Your task to perform on an android device: check out phone information Image 0: 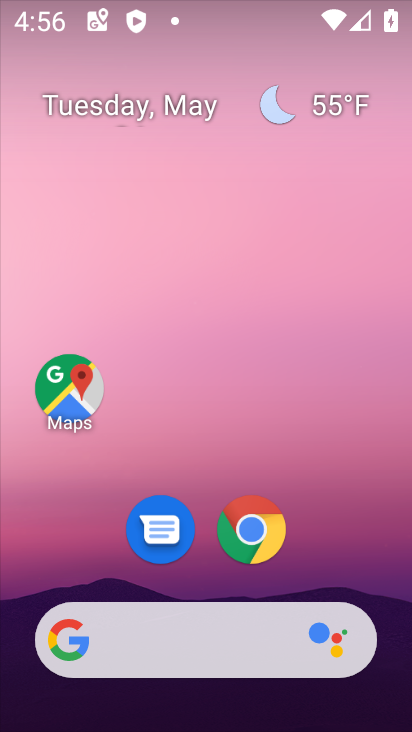
Step 0: click (130, 176)
Your task to perform on an android device: check out phone information Image 1: 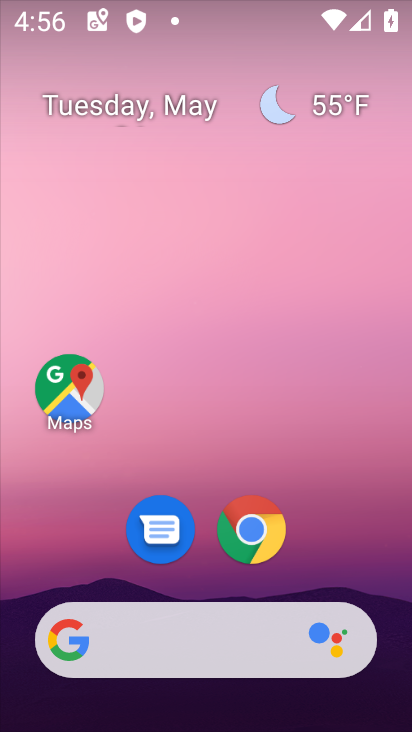
Step 1: drag from (268, 651) to (185, 34)
Your task to perform on an android device: check out phone information Image 2: 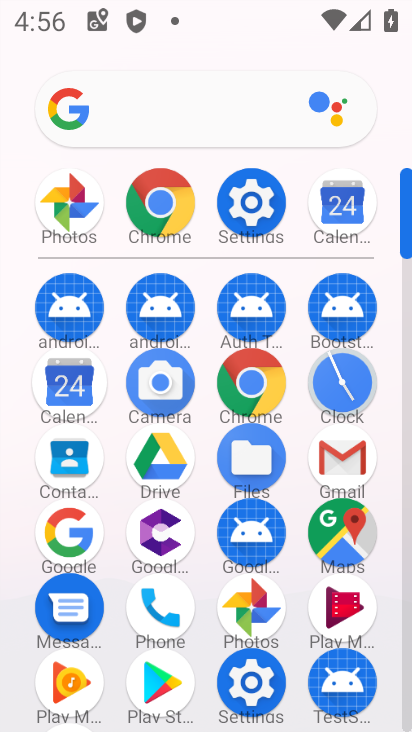
Step 2: drag from (283, 599) to (222, 63)
Your task to perform on an android device: check out phone information Image 3: 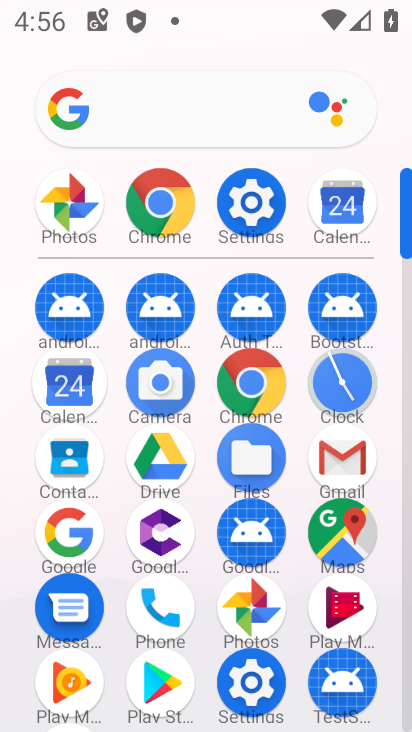
Step 3: click (237, 206)
Your task to perform on an android device: check out phone information Image 4: 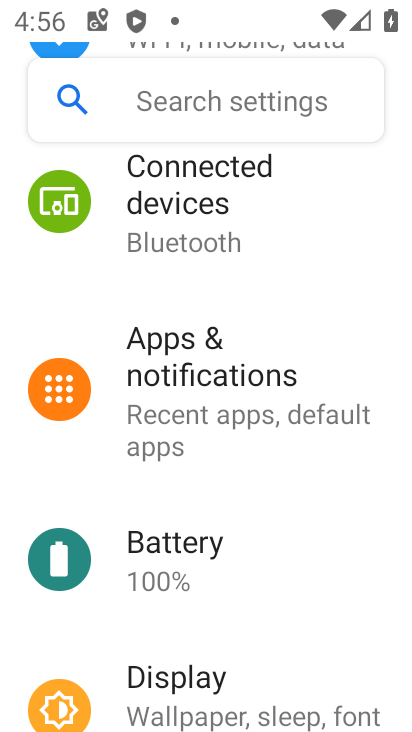
Step 4: drag from (230, 579) to (193, 228)
Your task to perform on an android device: check out phone information Image 5: 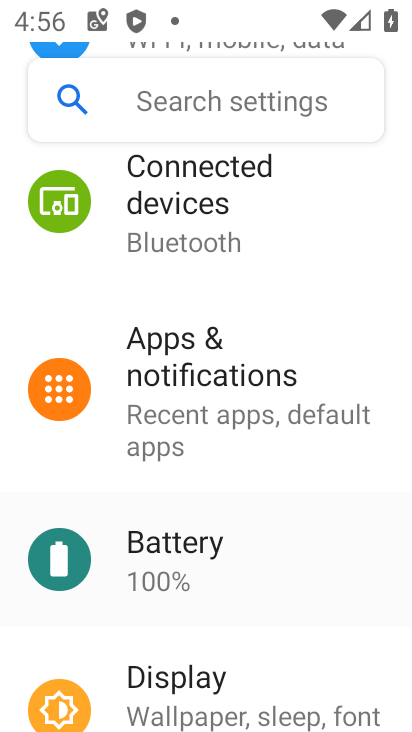
Step 5: drag from (302, 567) to (213, 64)
Your task to perform on an android device: check out phone information Image 6: 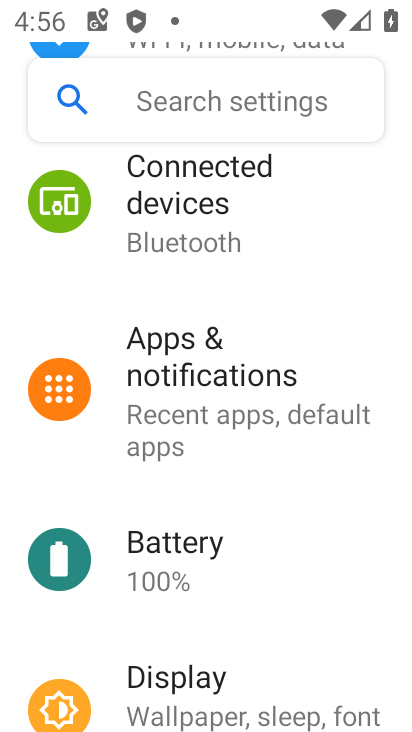
Step 6: press back button
Your task to perform on an android device: check out phone information Image 7: 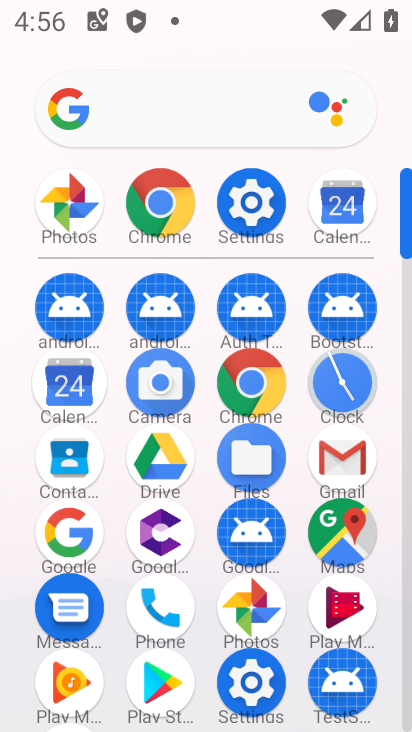
Step 7: click (246, 691)
Your task to perform on an android device: check out phone information Image 8: 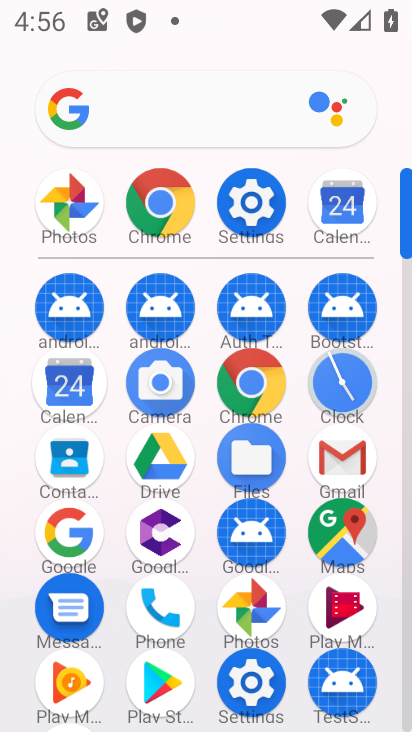
Step 8: click (246, 691)
Your task to perform on an android device: check out phone information Image 9: 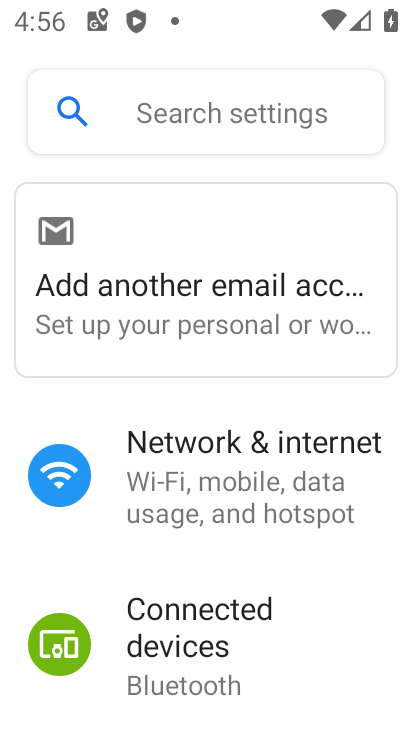
Step 9: click (202, 486)
Your task to perform on an android device: check out phone information Image 10: 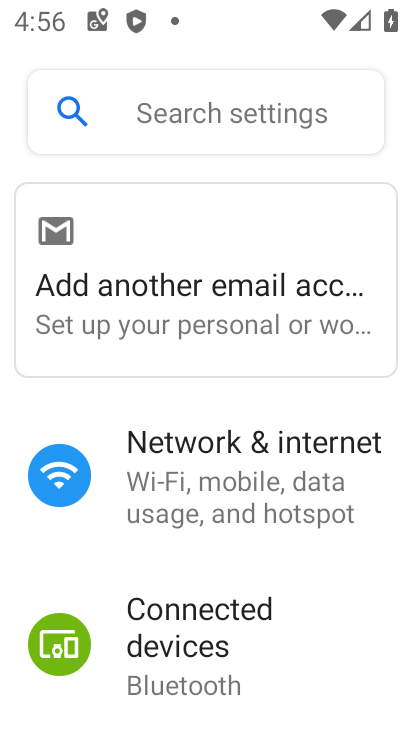
Step 10: click (203, 483)
Your task to perform on an android device: check out phone information Image 11: 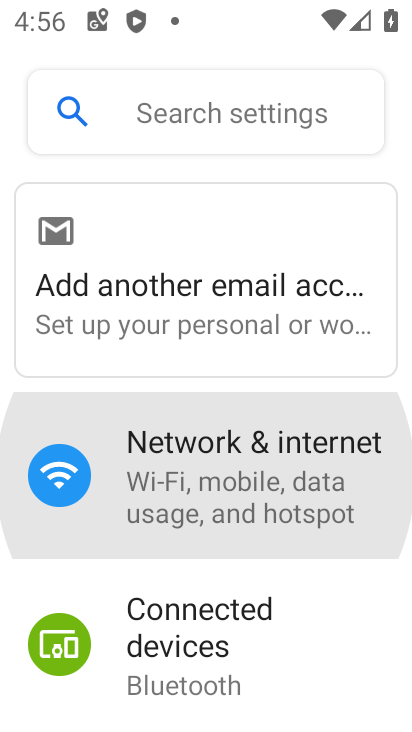
Step 11: click (204, 480)
Your task to perform on an android device: check out phone information Image 12: 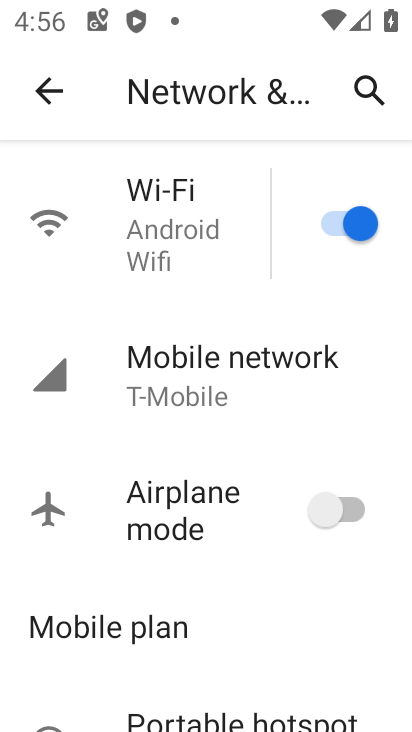
Step 12: task complete